Your task to perform on an android device: Is it going to rain this weekend? Image 0: 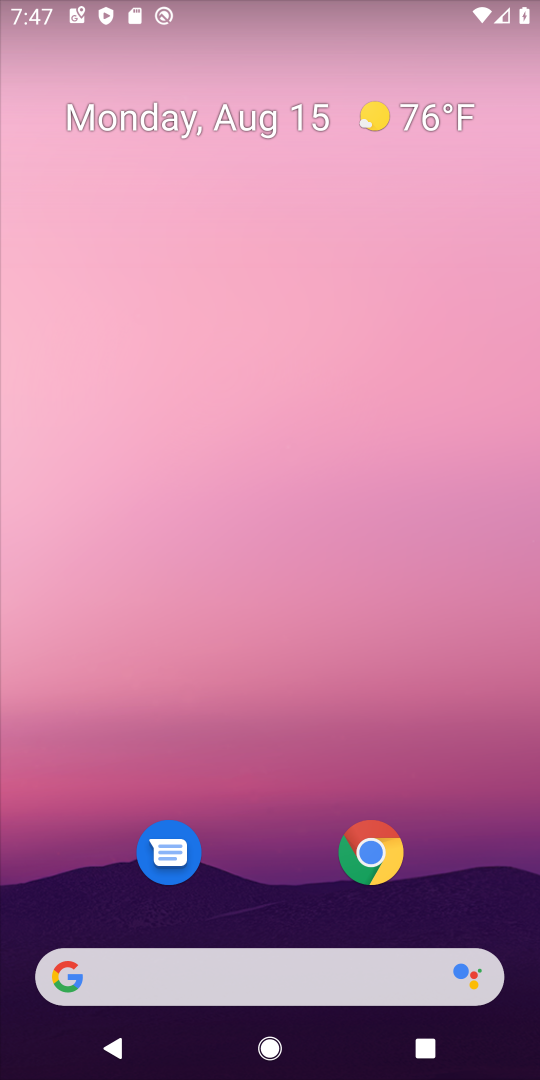
Step 0: drag from (273, 966) to (287, 104)
Your task to perform on an android device: Is it going to rain this weekend? Image 1: 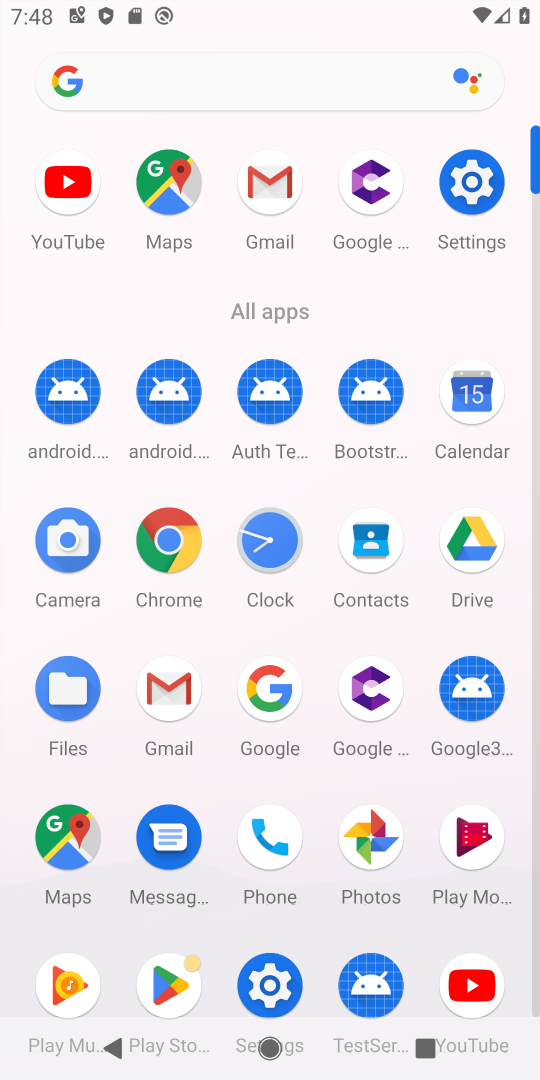
Step 1: click (263, 691)
Your task to perform on an android device: Is it going to rain this weekend? Image 2: 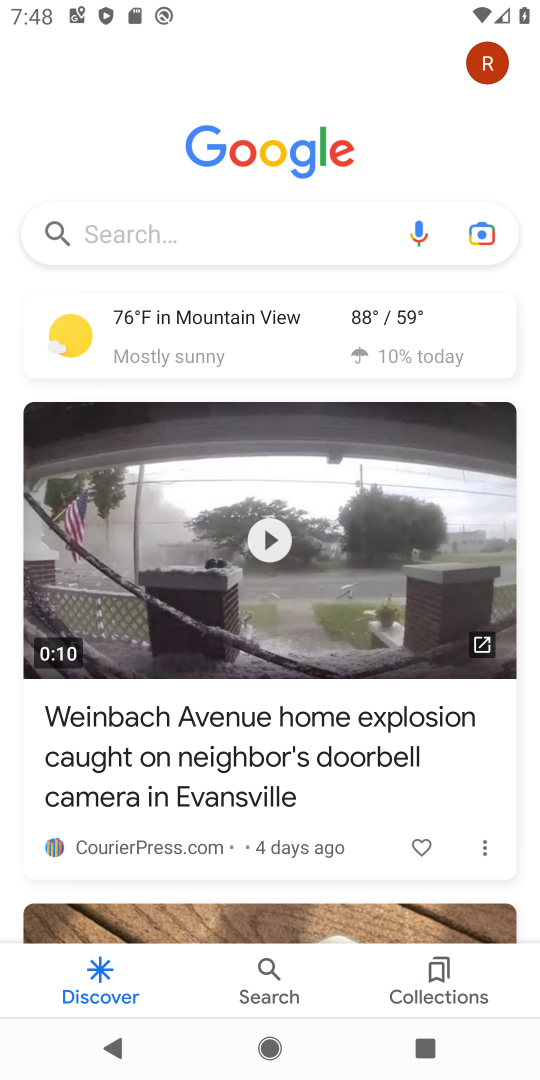
Step 2: click (171, 229)
Your task to perform on an android device: Is it going to rain this weekend? Image 3: 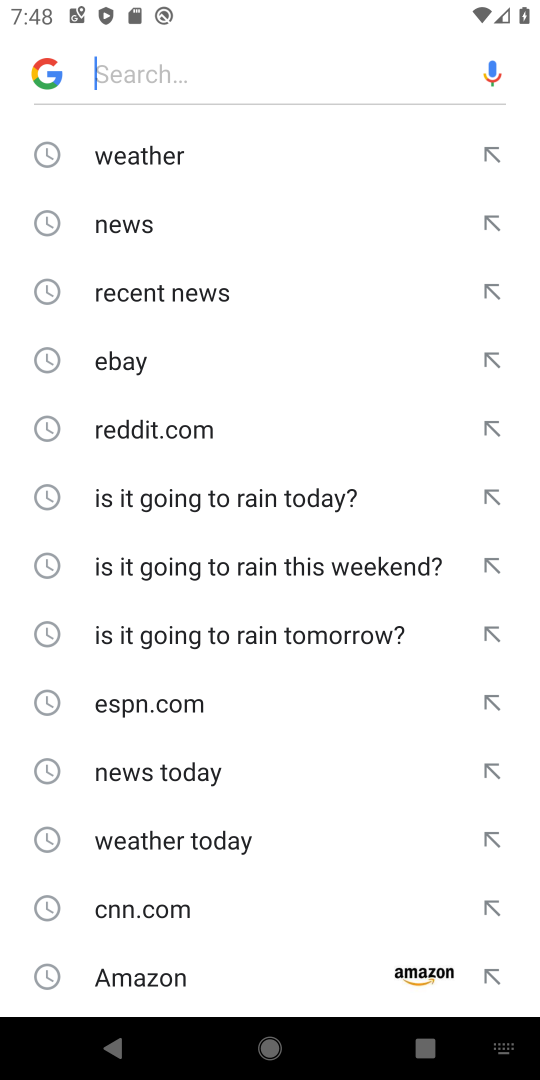
Step 3: type "Is it going to rain this weekend?"
Your task to perform on an android device: Is it going to rain this weekend? Image 4: 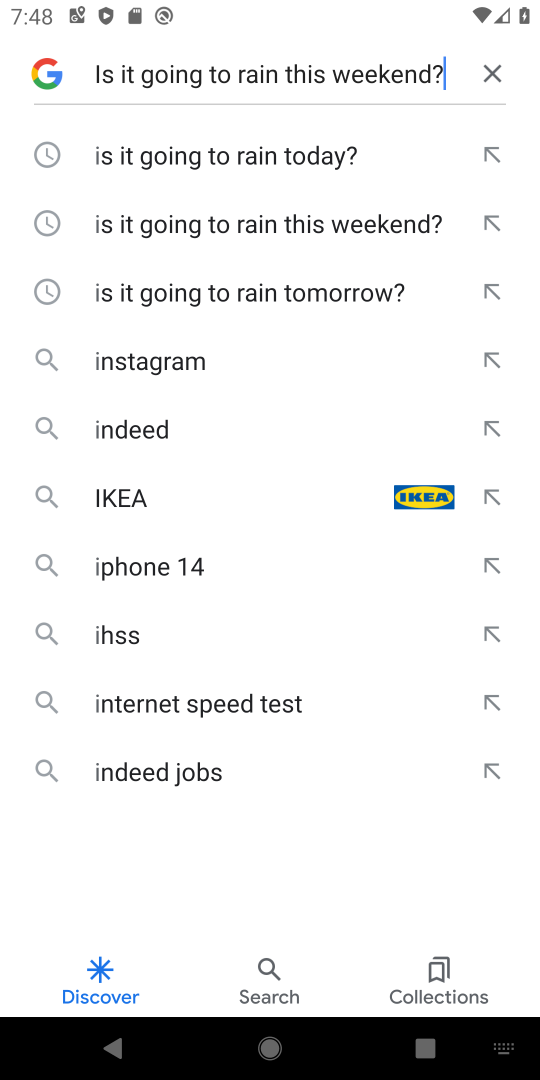
Step 4: type ""
Your task to perform on an android device: Is it going to rain this weekend? Image 5: 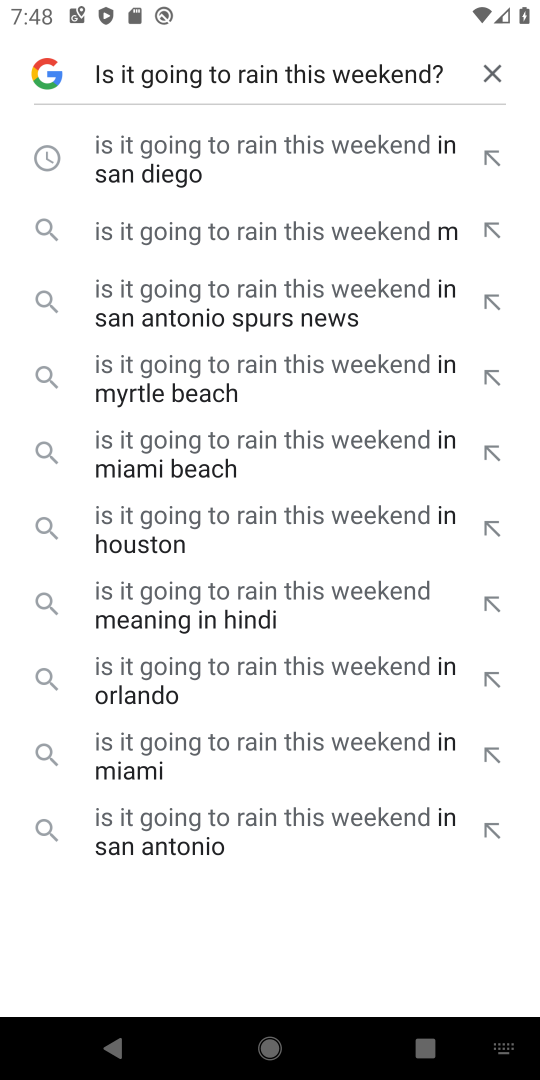
Step 5: click (291, 145)
Your task to perform on an android device: Is it going to rain this weekend? Image 6: 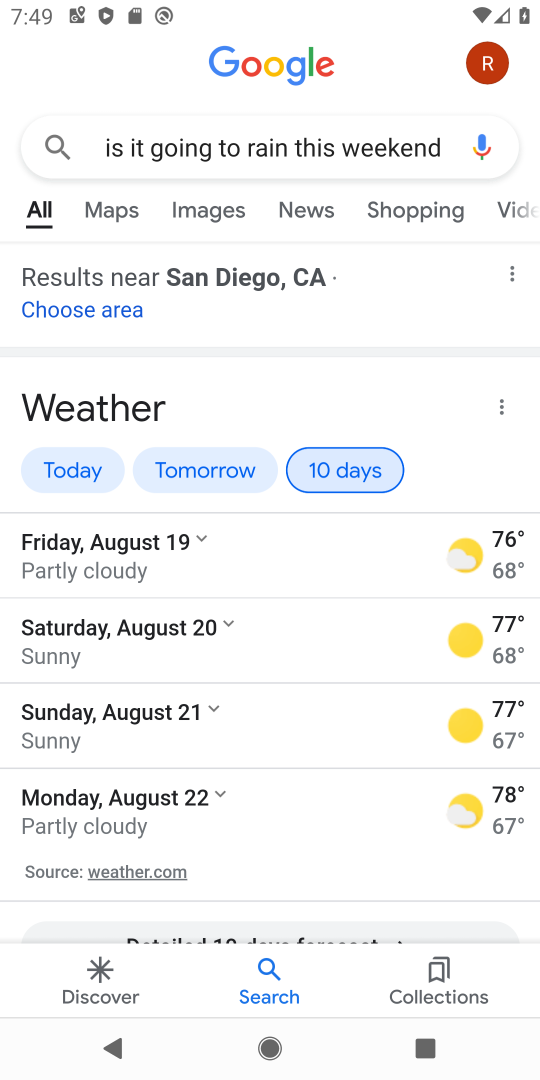
Step 6: task complete